Your task to perform on an android device: turn off data saver in the chrome app Image 0: 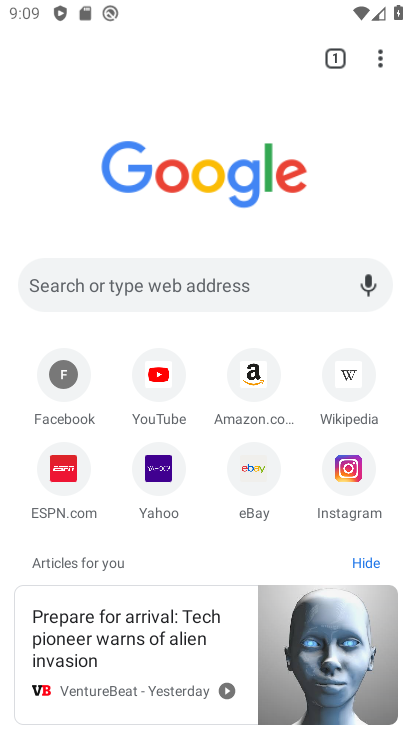
Step 0: drag from (384, 55) to (302, 498)
Your task to perform on an android device: turn off data saver in the chrome app Image 1: 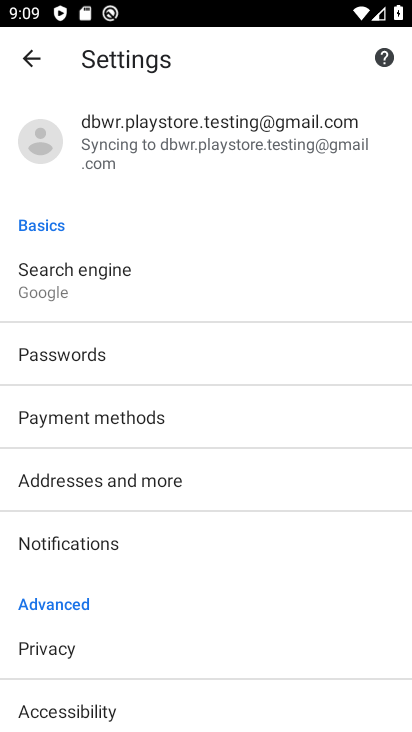
Step 1: drag from (110, 657) to (277, 286)
Your task to perform on an android device: turn off data saver in the chrome app Image 2: 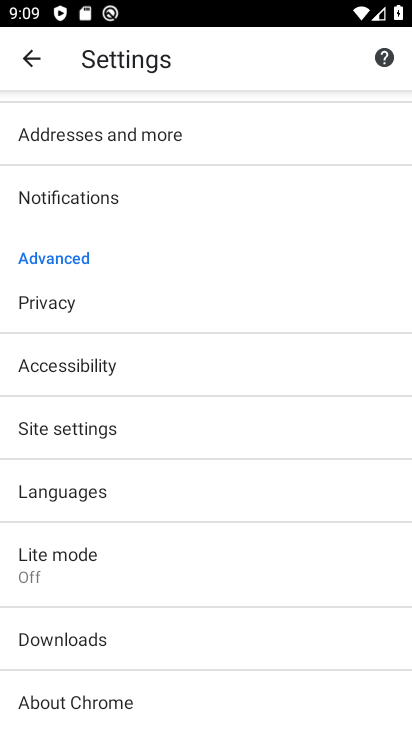
Step 2: click (173, 571)
Your task to perform on an android device: turn off data saver in the chrome app Image 3: 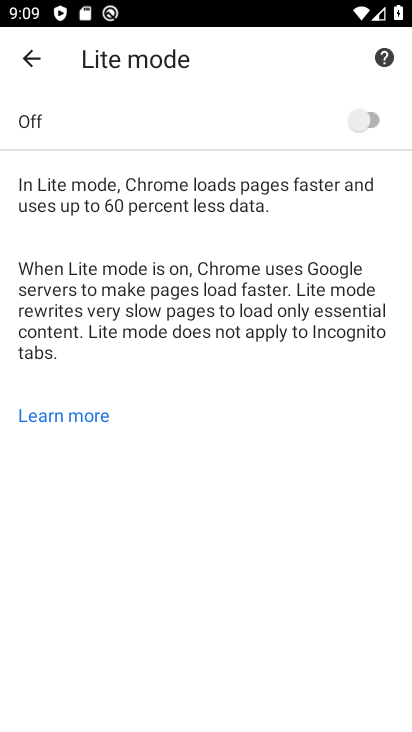
Step 3: task complete